Your task to perform on an android device: toggle location history Image 0: 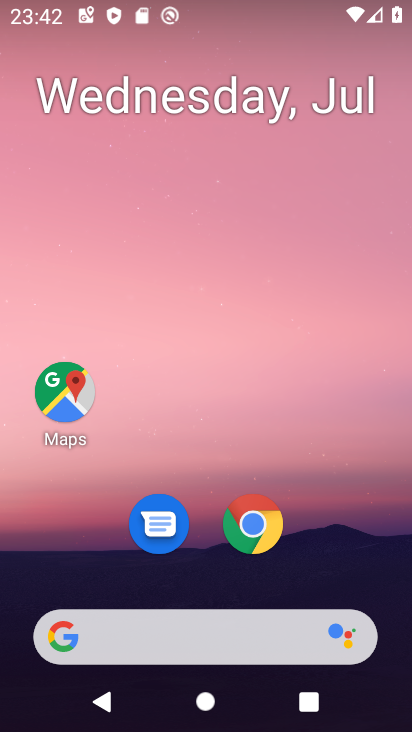
Step 0: click (72, 404)
Your task to perform on an android device: toggle location history Image 1: 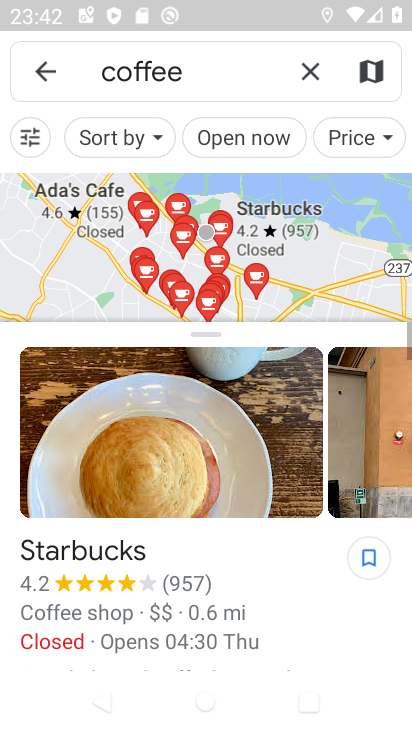
Step 1: click (39, 73)
Your task to perform on an android device: toggle location history Image 2: 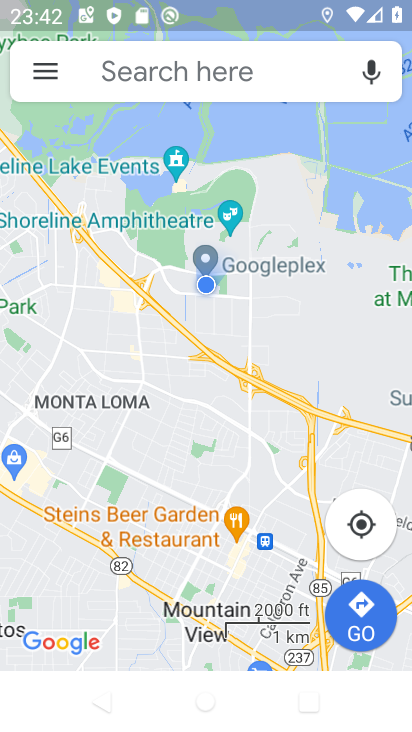
Step 2: click (43, 73)
Your task to perform on an android device: toggle location history Image 3: 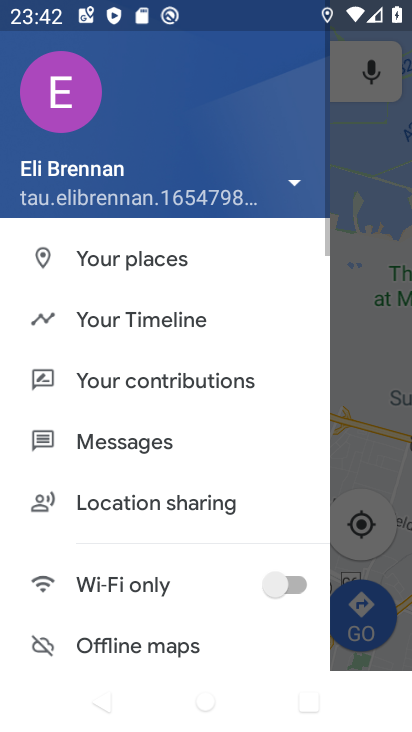
Step 3: click (96, 322)
Your task to perform on an android device: toggle location history Image 4: 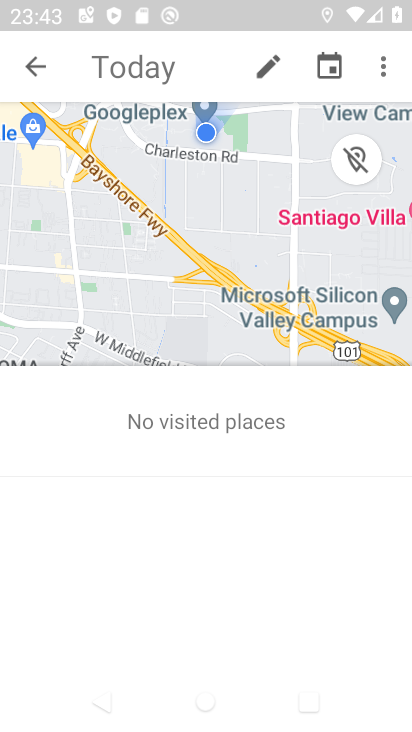
Step 4: click (384, 70)
Your task to perform on an android device: toggle location history Image 5: 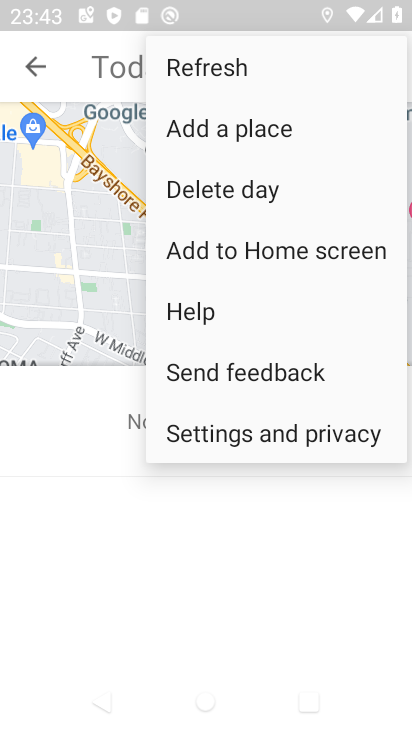
Step 5: click (307, 431)
Your task to perform on an android device: toggle location history Image 6: 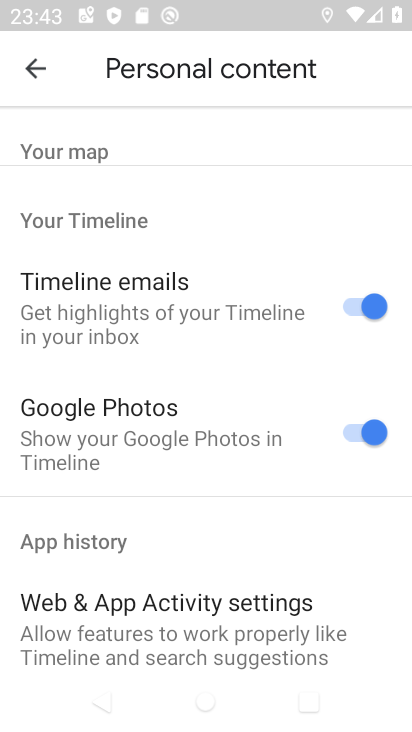
Step 6: drag from (221, 598) to (384, 6)
Your task to perform on an android device: toggle location history Image 7: 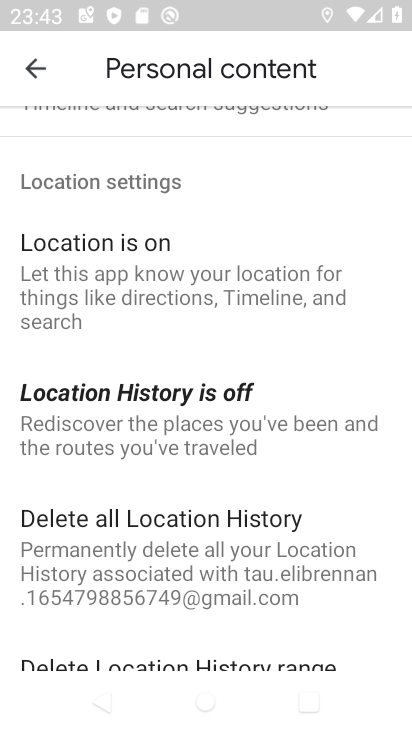
Step 7: click (155, 425)
Your task to perform on an android device: toggle location history Image 8: 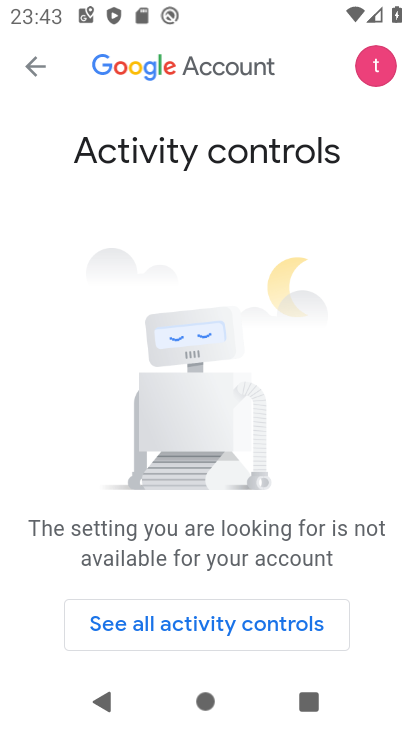
Step 8: task complete